Your task to perform on an android device: Check the news Image 0: 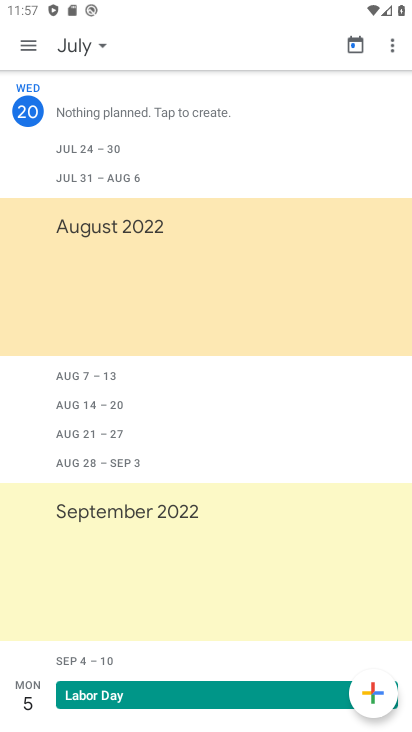
Step 0: press home button
Your task to perform on an android device: Check the news Image 1: 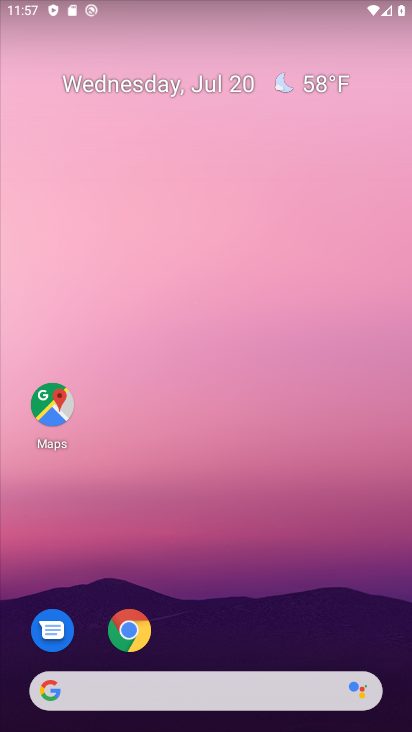
Step 1: drag from (213, 674) to (204, 296)
Your task to perform on an android device: Check the news Image 2: 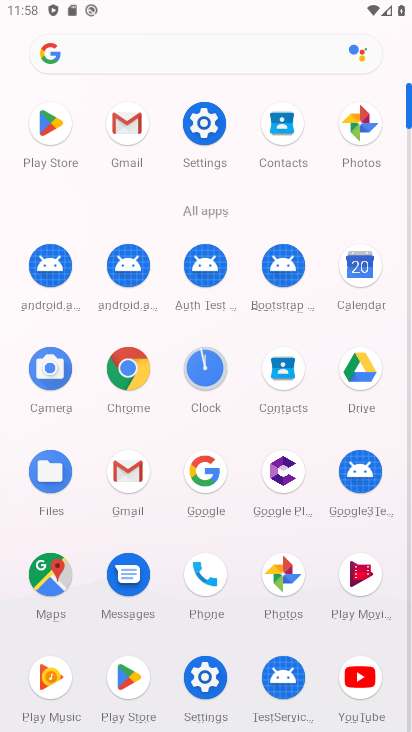
Step 2: click (122, 368)
Your task to perform on an android device: Check the news Image 3: 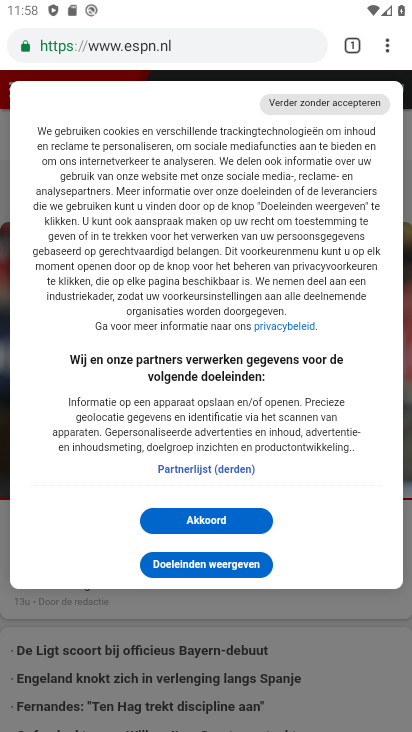
Step 3: click (191, 45)
Your task to perform on an android device: Check the news Image 4: 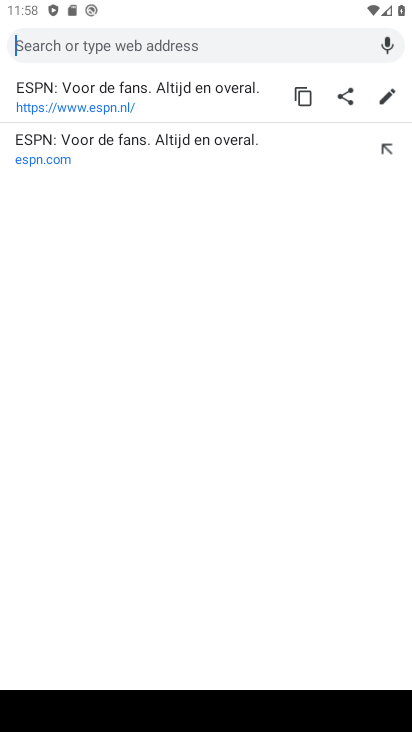
Step 4: type "news"
Your task to perform on an android device: Check the news Image 5: 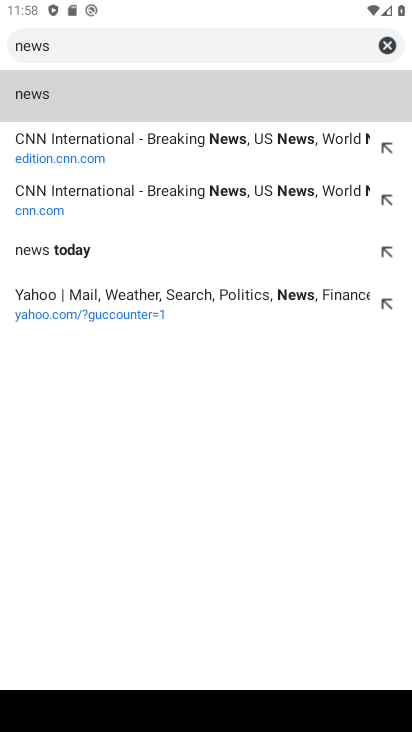
Step 5: click (142, 95)
Your task to perform on an android device: Check the news Image 6: 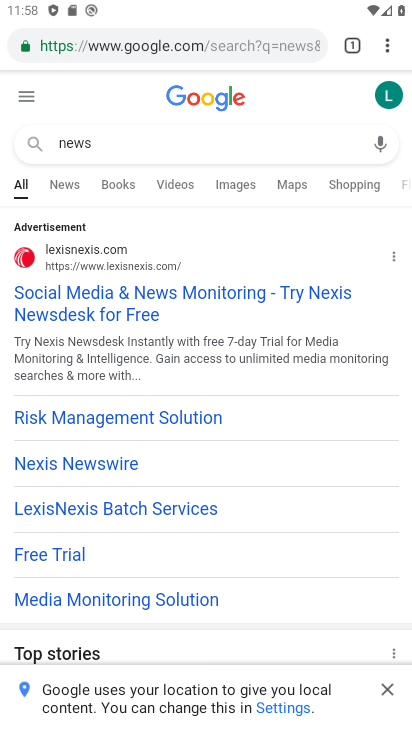
Step 6: task complete